Your task to perform on an android device: open a new tab in the chrome app Image 0: 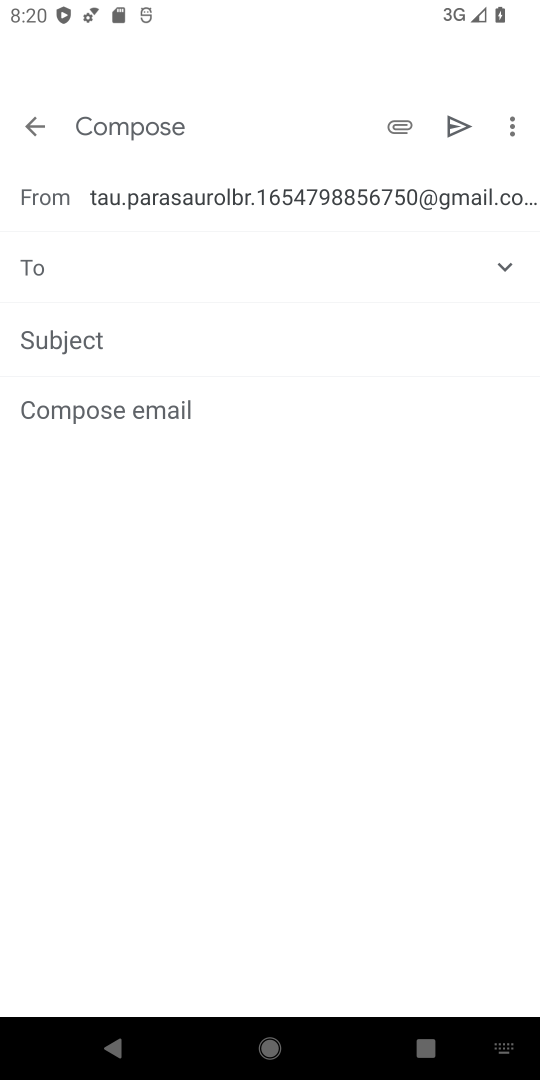
Step 0: press home button
Your task to perform on an android device: open a new tab in the chrome app Image 1: 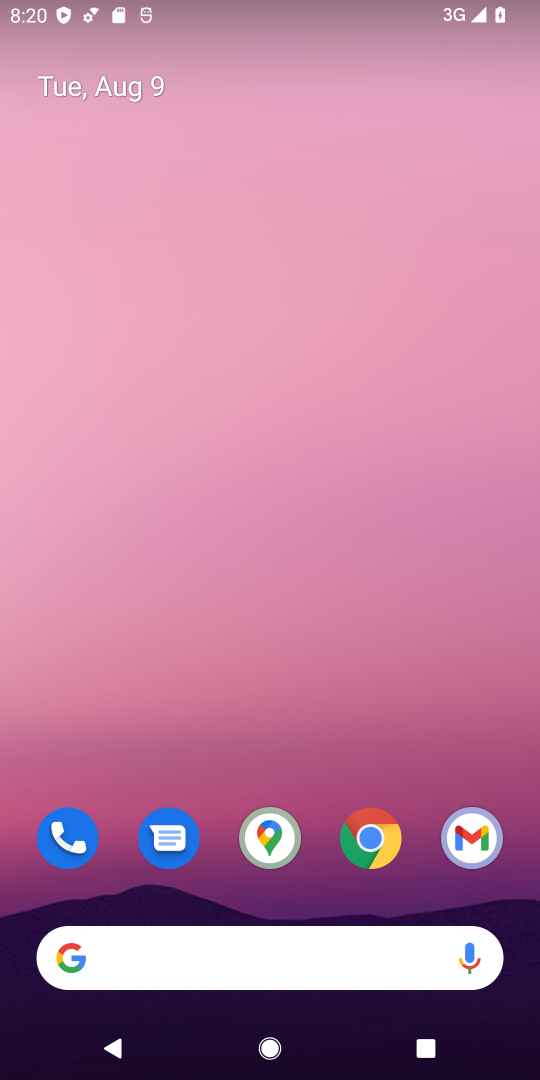
Step 1: click (374, 832)
Your task to perform on an android device: open a new tab in the chrome app Image 2: 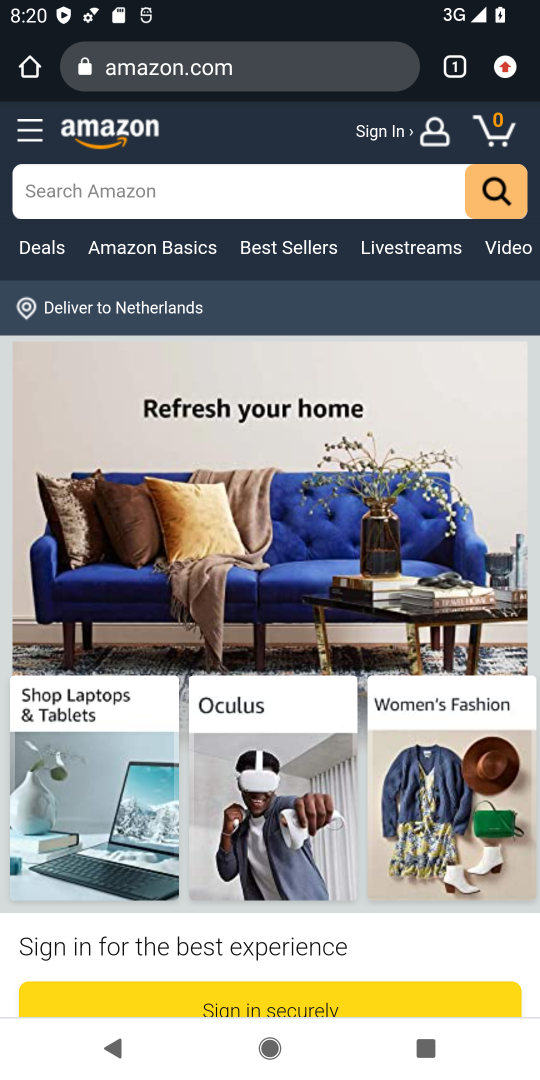
Step 2: click (453, 76)
Your task to perform on an android device: open a new tab in the chrome app Image 3: 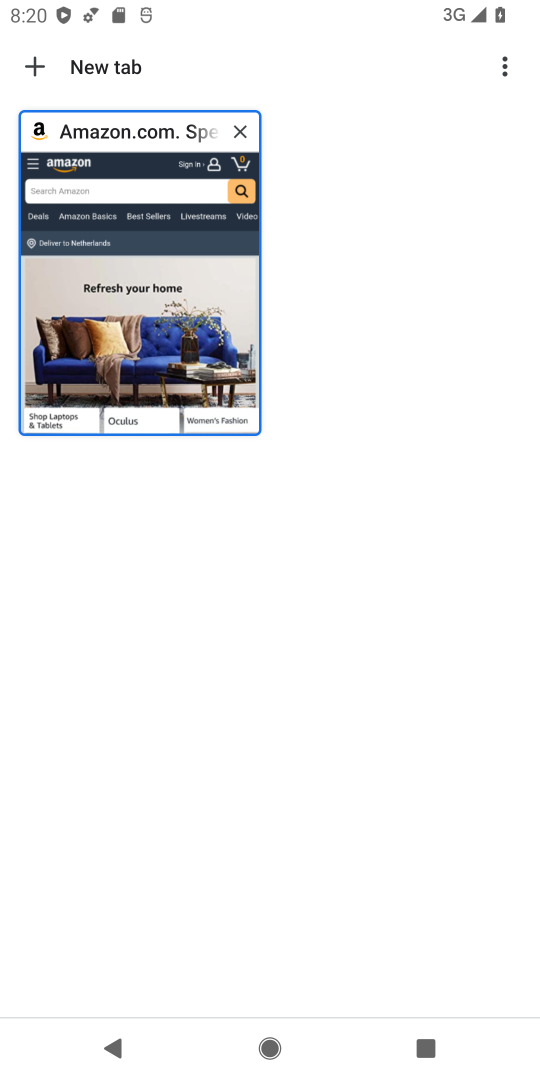
Step 3: click (35, 66)
Your task to perform on an android device: open a new tab in the chrome app Image 4: 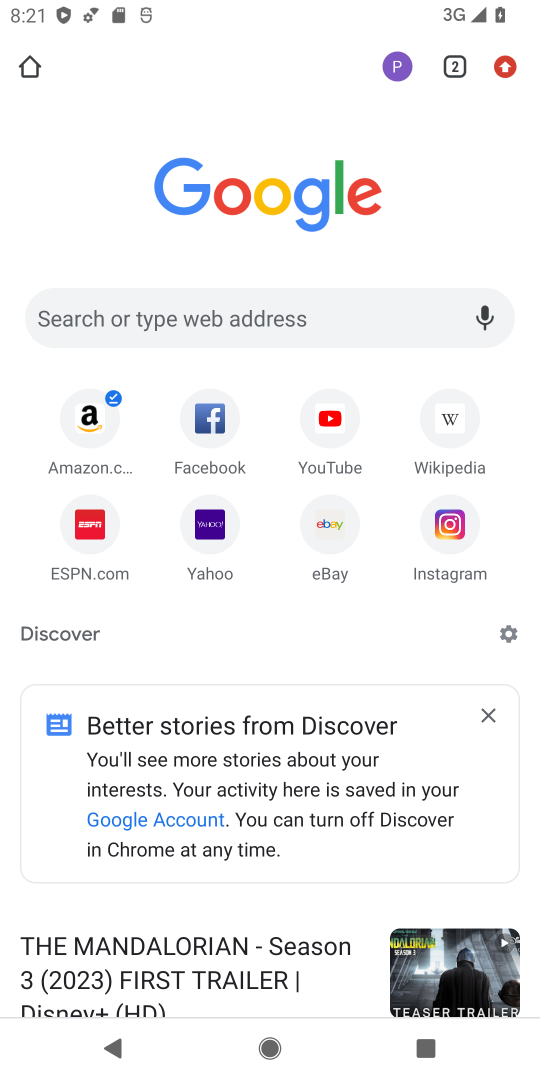
Step 4: task complete